Your task to perform on an android device: read, delete, or share a saved page in the chrome app Image 0: 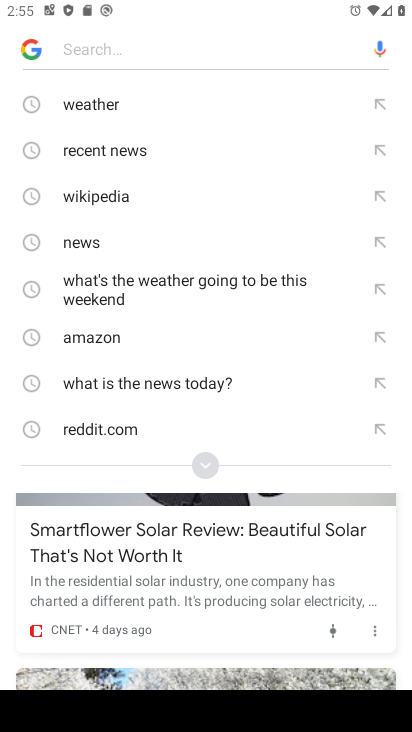
Step 0: press back button
Your task to perform on an android device: read, delete, or share a saved page in the chrome app Image 1: 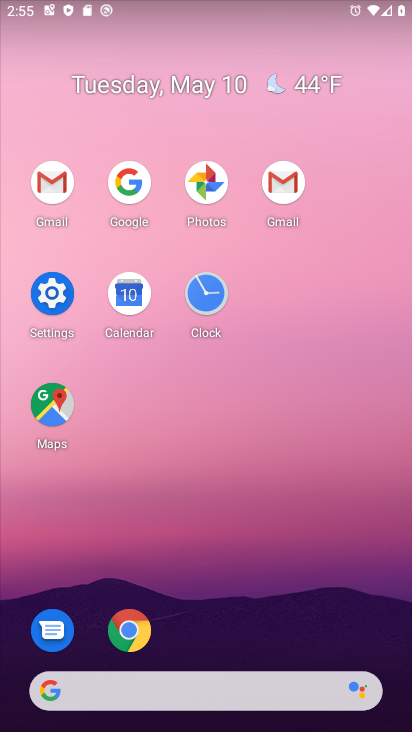
Step 1: click (129, 633)
Your task to perform on an android device: read, delete, or share a saved page in the chrome app Image 2: 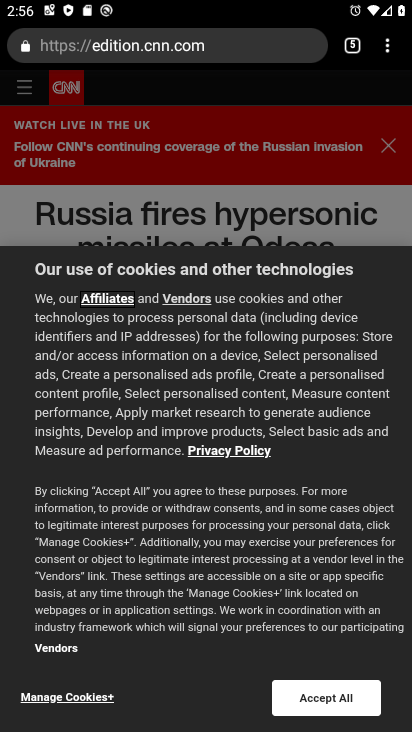
Step 2: click (393, 53)
Your task to perform on an android device: read, delete, or share a saved page in the chrome app Image 3: 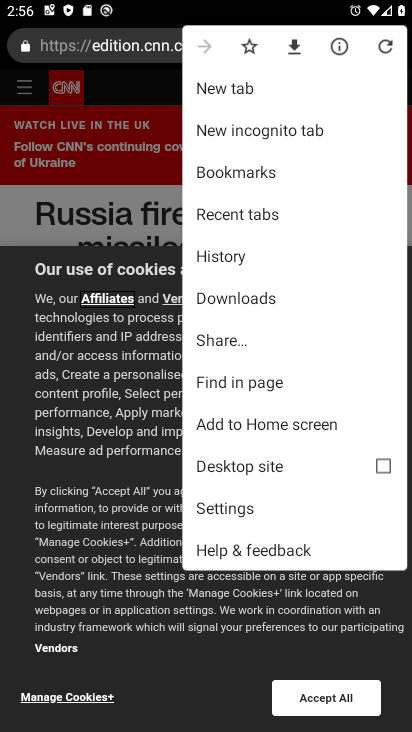
Step 3: click (232, 292)
Your task to perform on an android device: read, delete, or share a saved page in the chrome app Image 4: 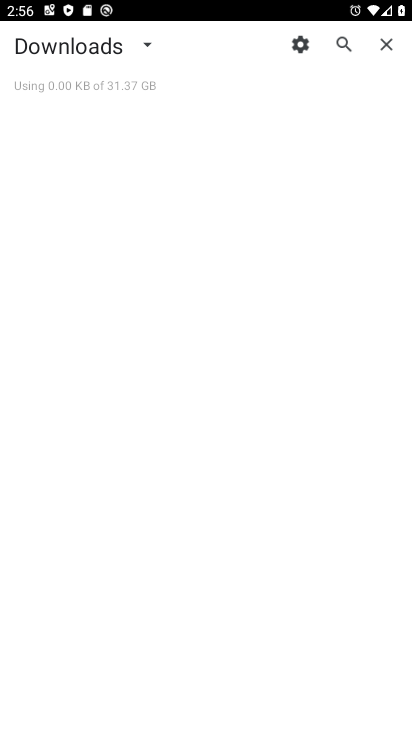
Step 4: task complete